Your task to perform on an android device: Set the phone to "Do not disturb". Image 0: 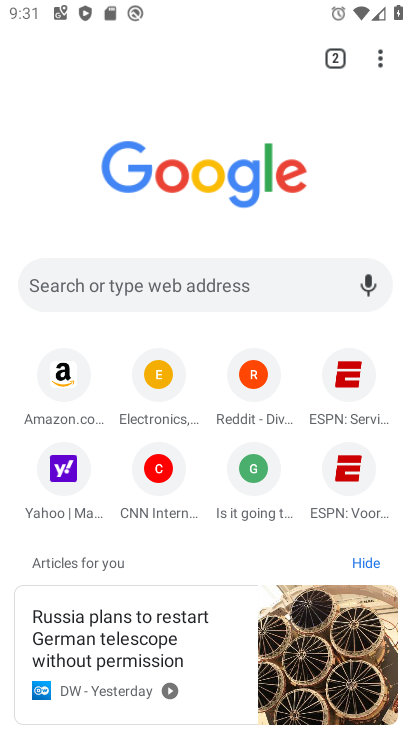
Step 0: press home button
Your task to perform on an android device: Set the phone to "Do not disturb". Image 1: 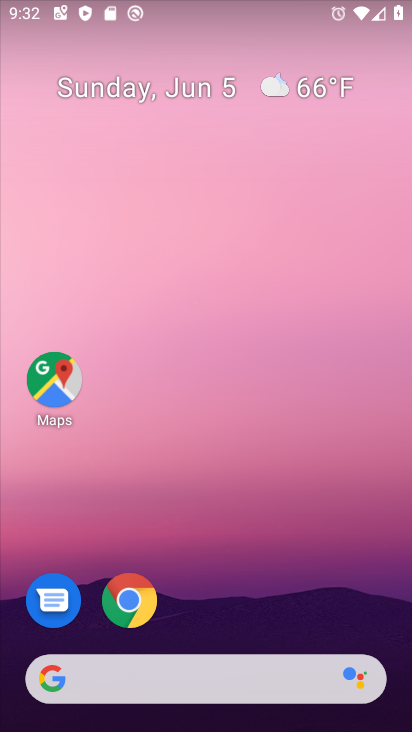
Step 1: drag from (187, 8) to (226, 464)
Your task to perform on an android device: Set the phone to "Do not disturb". Image 2: 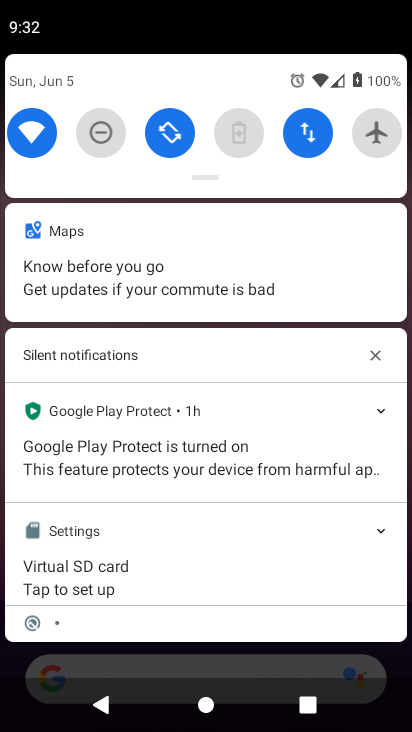
Step 2: click (96, 130)
Your task to perform on an android device: Set the phone to "Do not disturb". Image 3: 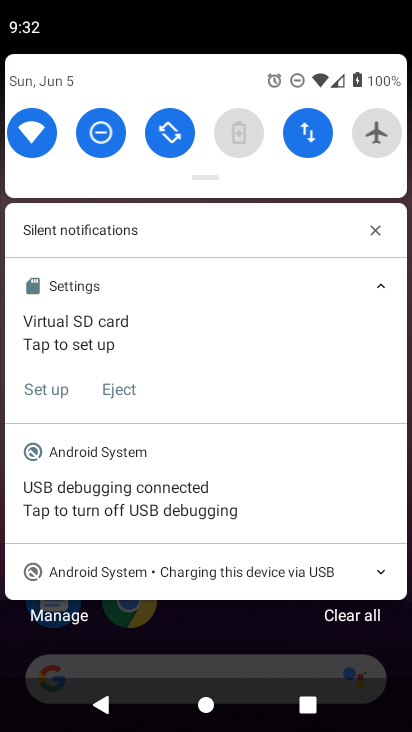
Step 3: task complete